Your task to perform on an android device: open app "Spotify" Image 0: 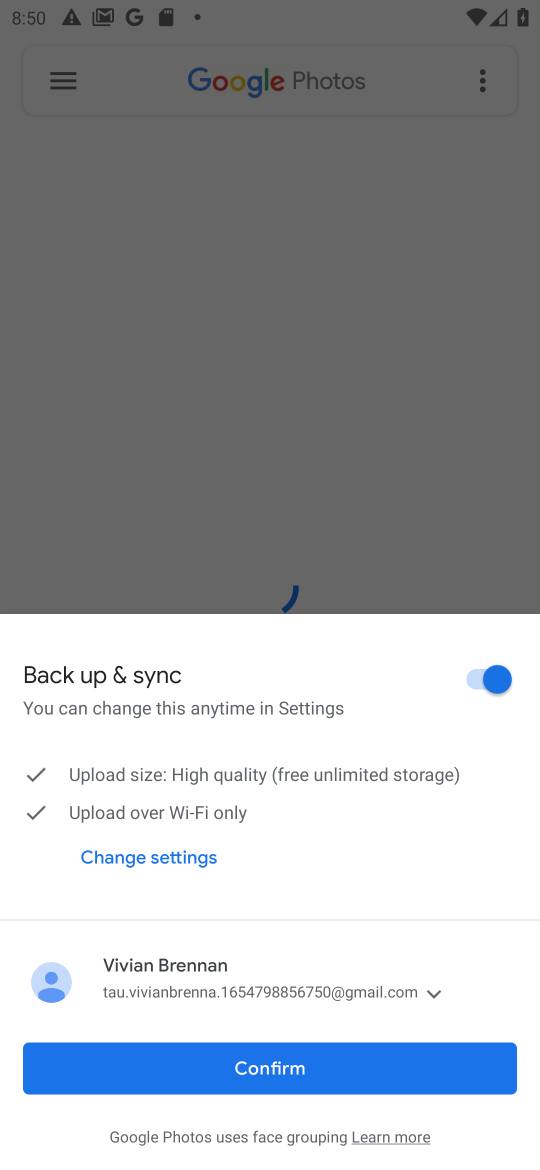
Step 0: press home button
Your task to perform on an android device: open app "Spotify" Image 1: 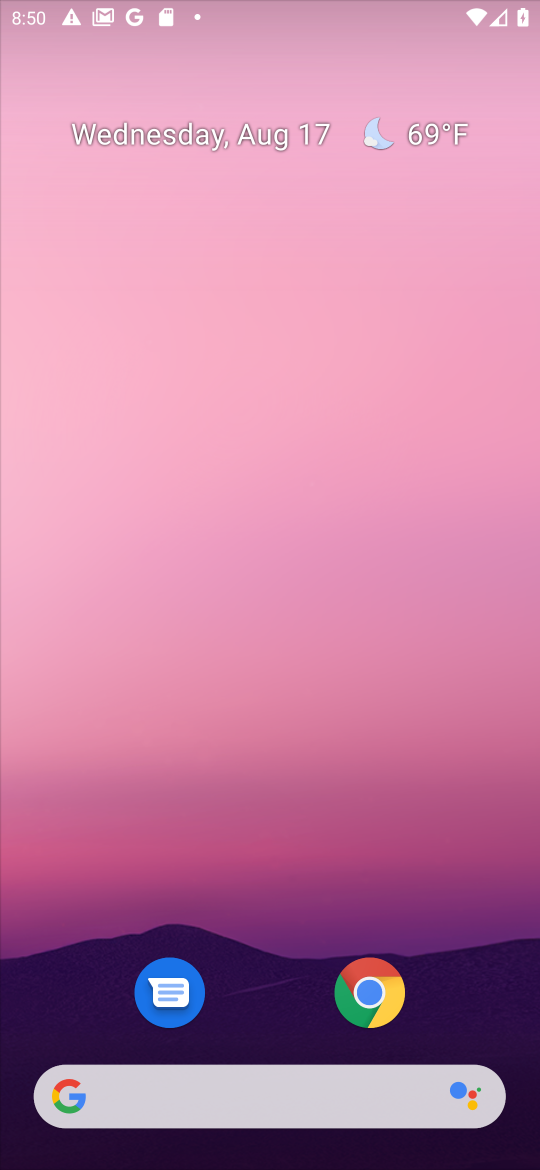
Step 1: drag from (502, 1005) to (295, 66)
Your task to perform on an android device: open app "Spotify" Image 2: 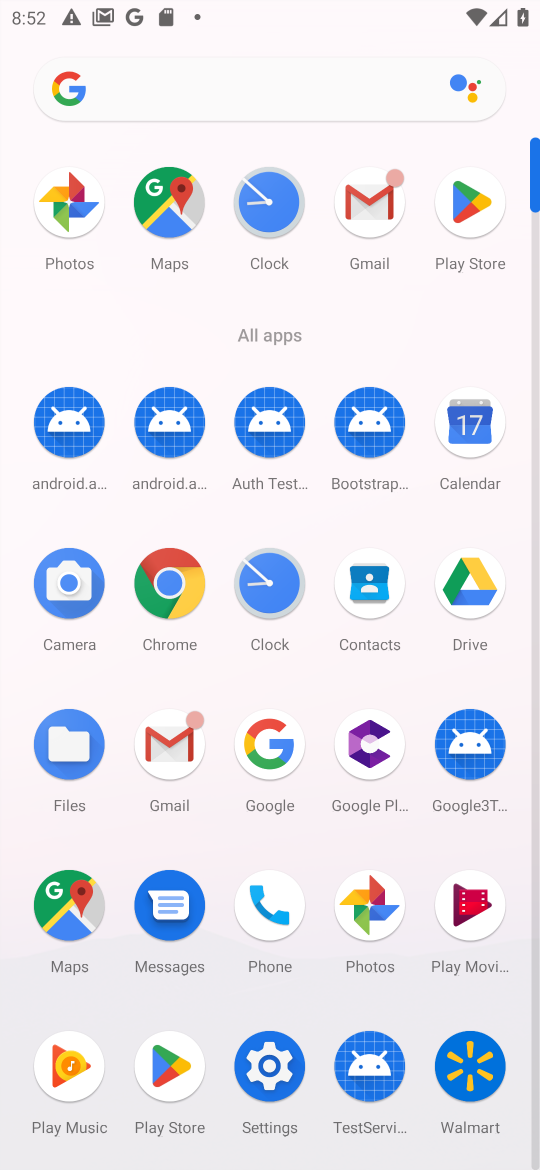
Step 2: click (157, 1064)
Your task to perform on an android device: open app "Spotify" Image 3: 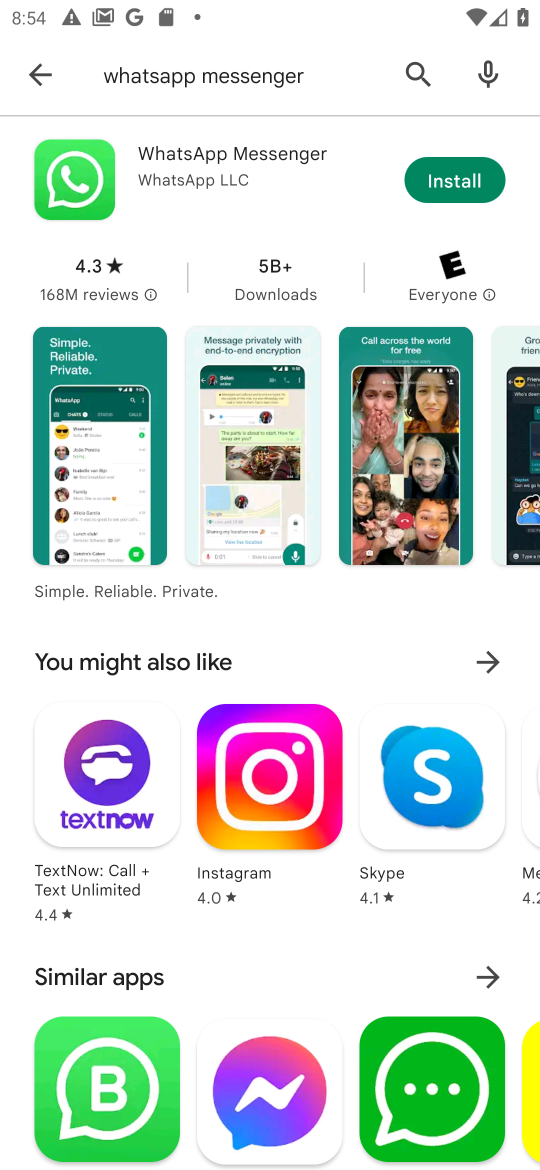
Step 3: press back button
Your task to perform on an android device: open app "Spotify" Image 4: 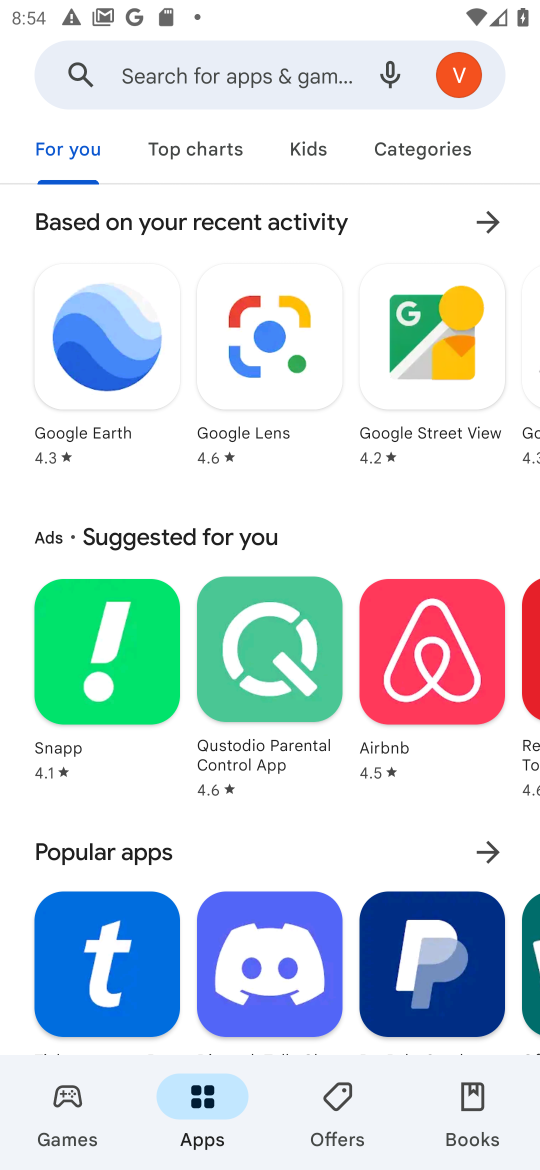
Step 4: click (178, 65)
Your task to perform on an android device: open app "Spotify" Image 5: 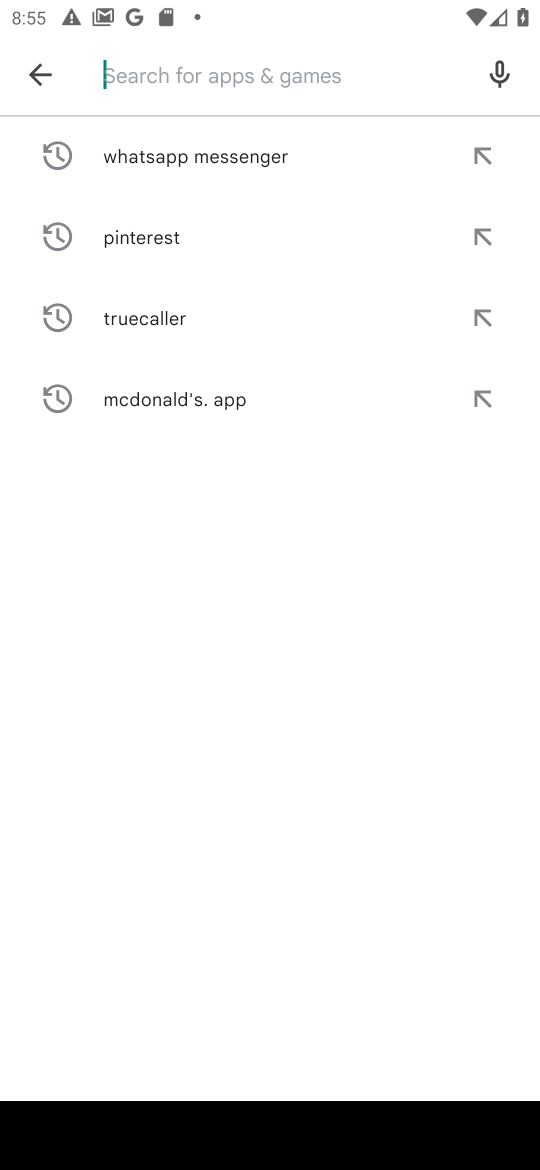
Step 5: type "Spotify"
Your task to perform on an android device: open app "Spotify" Image 6: 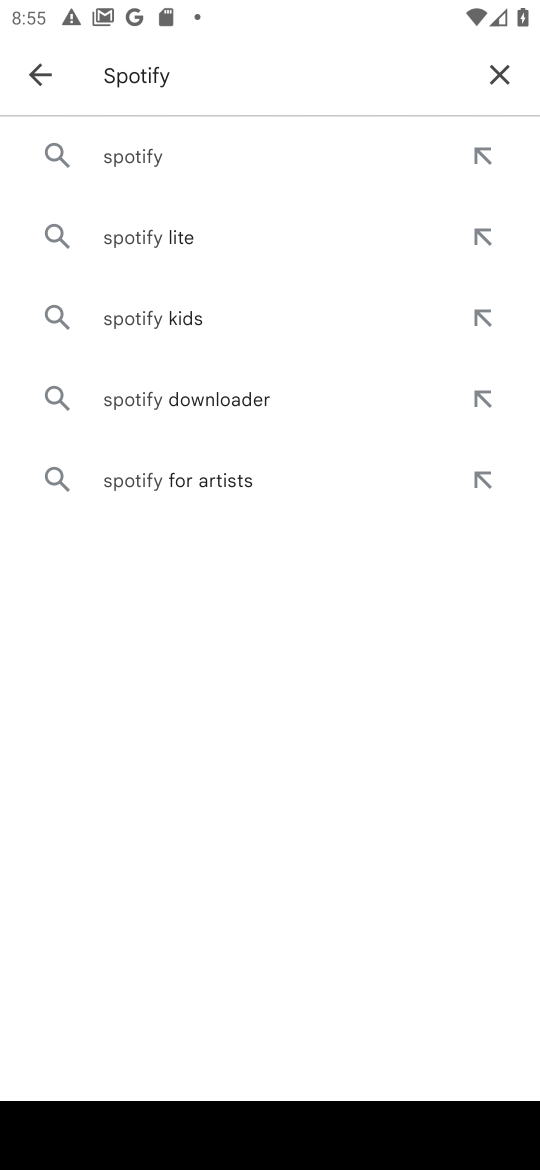
Step 6: click (22, 165)
Your task to perform on an android device: open app "Spotify" Image 7: 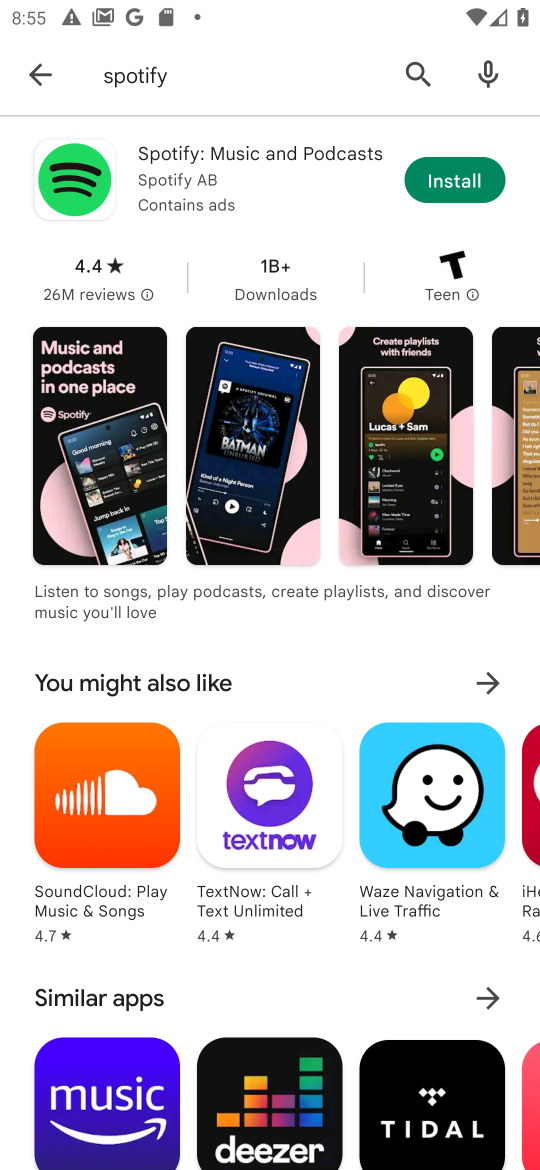
Step 7: task complete